Your task to perform on an android device: turn on showing notifications on the lock screen Image 0: 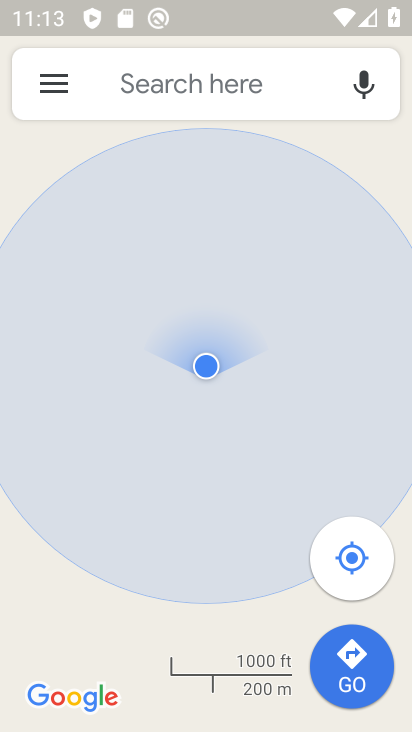
Step 0: press home button
Your task to perform on an android device: turn on showing notifications on the lock screen Image 1: 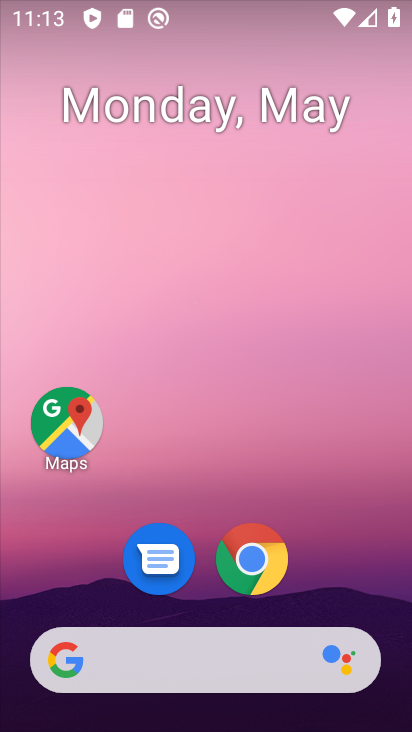
Step 1: drag from (165, 626) to (283, 94)
Your task to perform on an android device: turn on showing notifications on the lock screen Image 2: 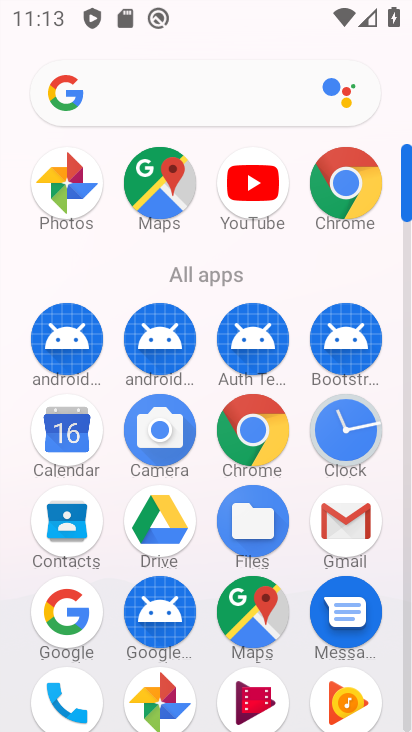
Step 2: drag from (182, 563) to (222, 329)
Your task to perform on an android device: turn on showing notifications on the lock screen Image 3: 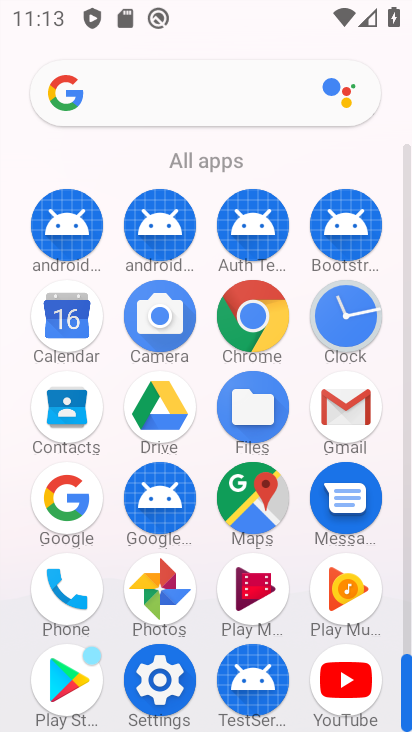
Step 3: click (158, 677)
Your task to perform on an android device: turn on showing notifications on the lock screen Image 4: 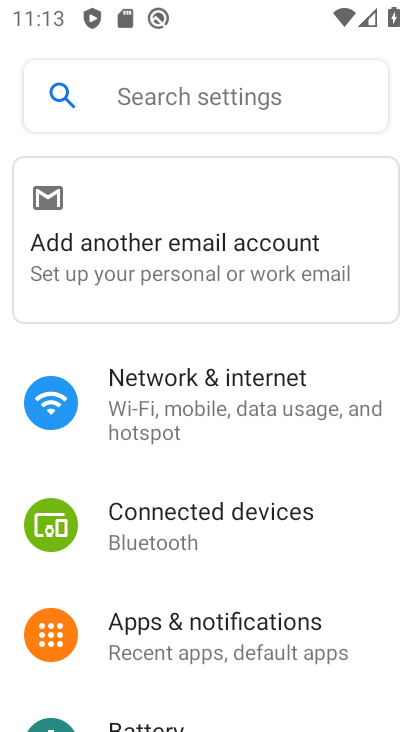
Step 4: drag from (207, 662) to (249, 415)
Your task to perform on an android device: turn on showing notifications on the lock screen Image 5: 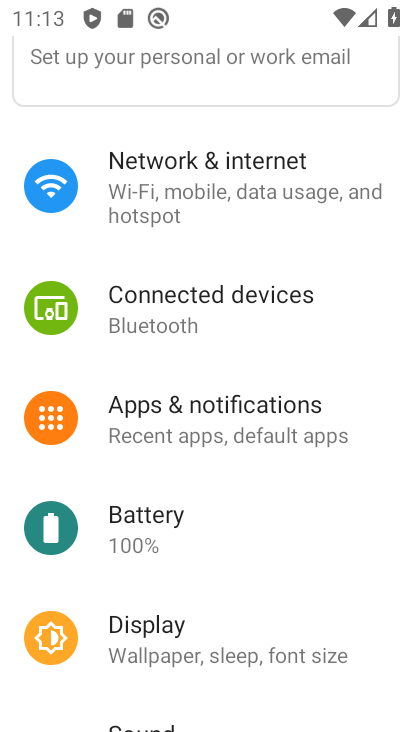
Step 5: click (201, 428)
Your task to perform on an android device: turn on showing notifications on the lock screen Image 6: 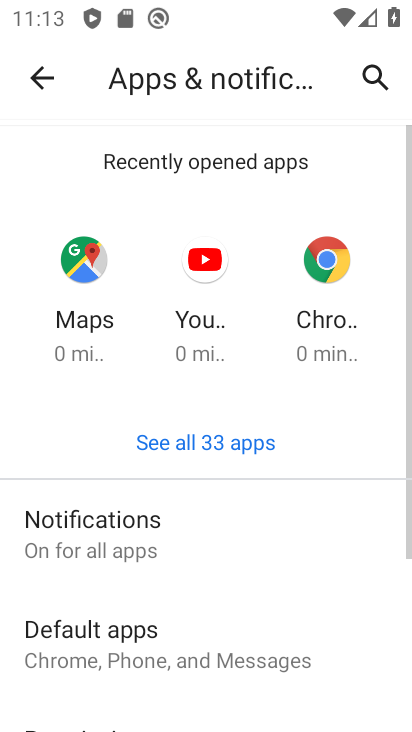
Step 6: click (199, 541)
Your task to perform on an android device: turn on showing notifications on the lock screen Image 7: 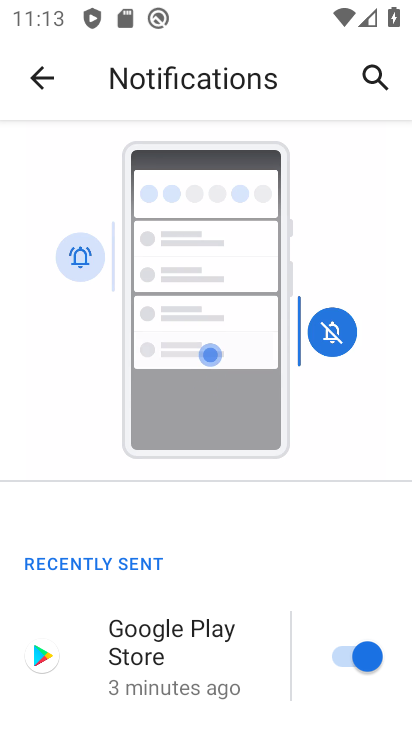
Step 7: drag from (199, 640) to (260, 184)
Your task to perform on an android device: turn on showing notifications on the lock screen Image 8: 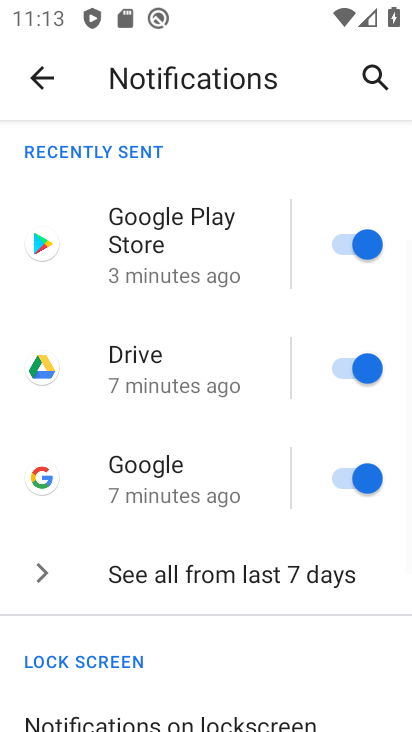
Step 8: drag from (151, 567) to (240, 266)
Your task to perform on an android device: turn on showing notifications on the lock screen Image 9: 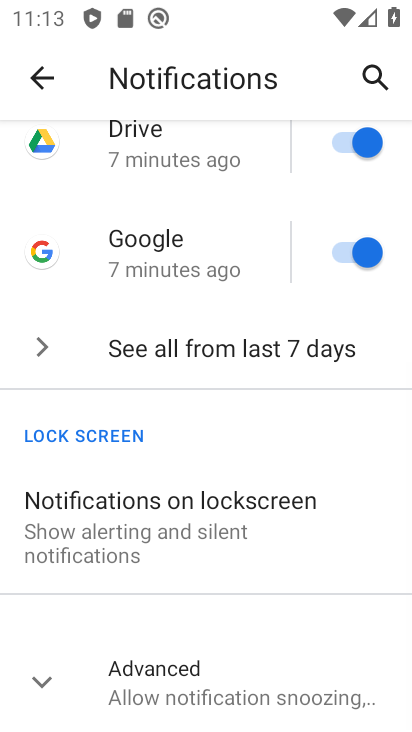
Step 9: click (180, 509)
Your task to perform on an android device: turn on showing notifications on the lock screen Image 10: 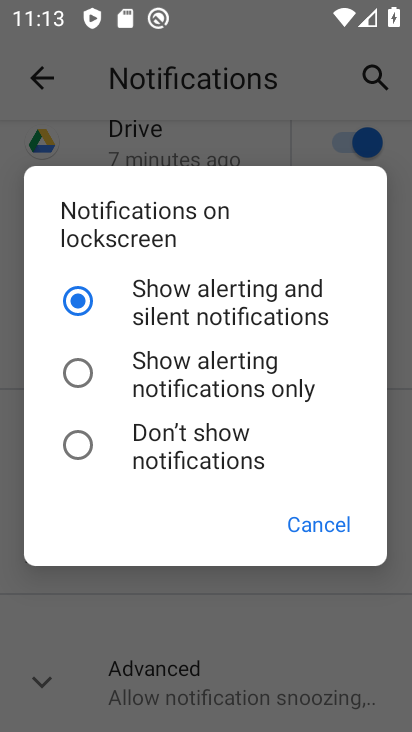
Step 10: task complete